Your task to perform on an android device: turn off wifi Image 0: 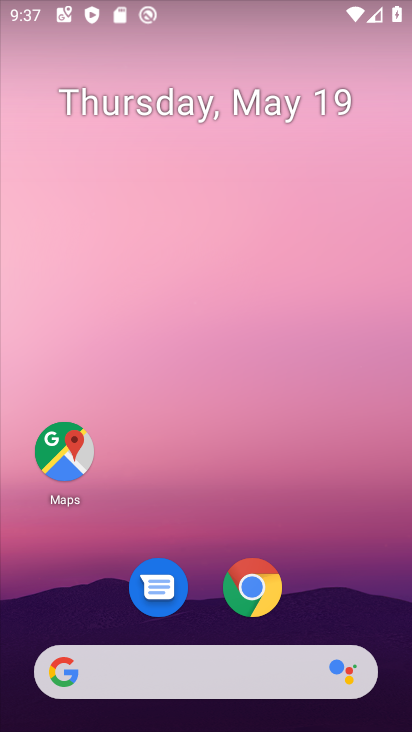
Step 0: drag from (157, 15) to (55, 701)
Your task to perform on an android device: turn off wifi Image 1: 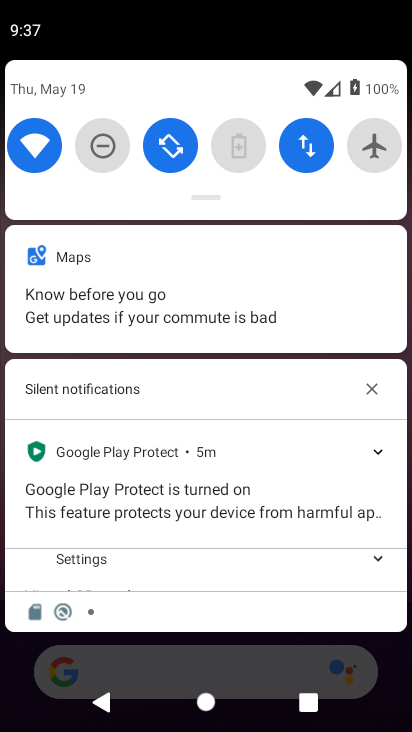
Step 1: click (26, 143)
Your task to perform on an android device: turn off wifi Image 2: 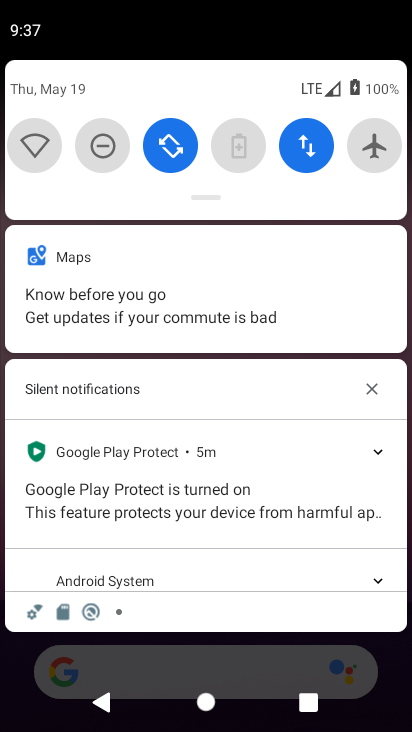
Step 2: task complete